Your task to perform on an android device: snooze an email in the gmail app Image 0: 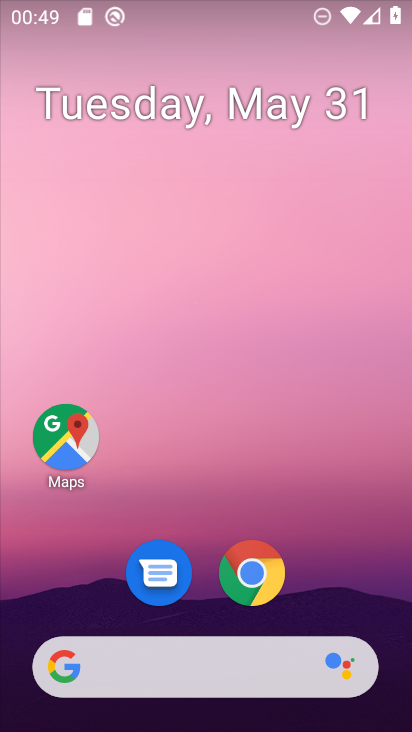
Step 0: drag from (197, 610) to (190, 253)
Your task to perform on an android device: snooze an email in the gmail app Image 1: 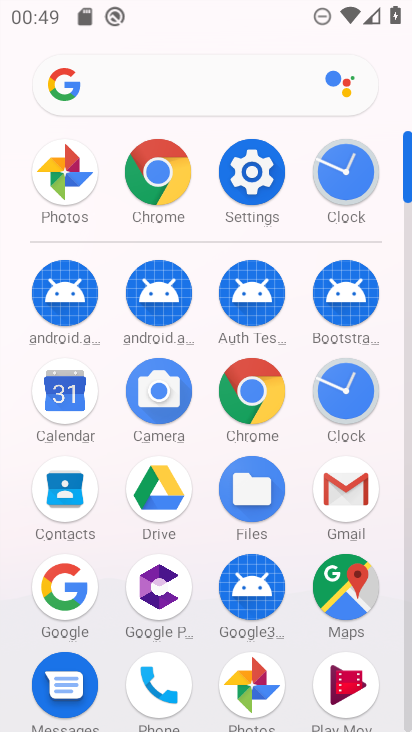
Step 1: click (352, 498)
Your task to perform on an android device: snooze an email in the gmail app Image 2: 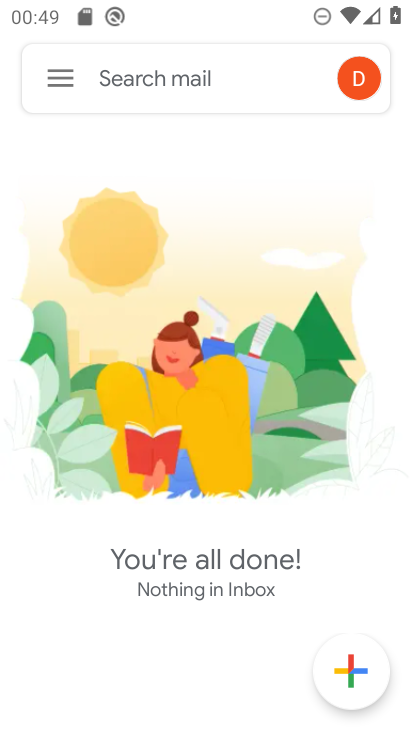
Step 2: task complete